Your task to perform on an android device: remove spam from my inbox in the gmail app Image 0: 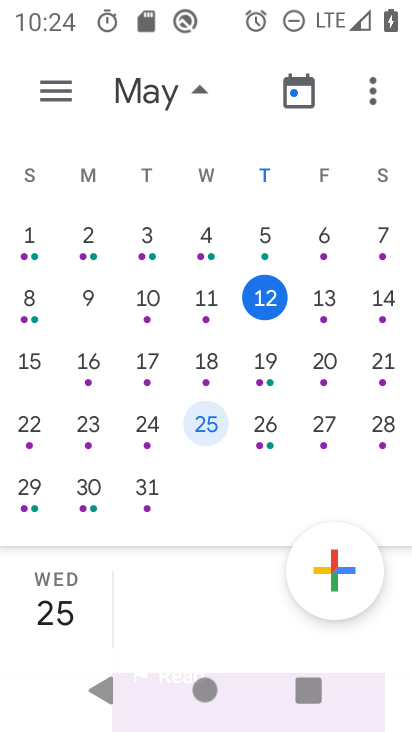
Step 0: press home button
Your task to perform on an android device: remove spam from my inbox in the gmail app Image 1: 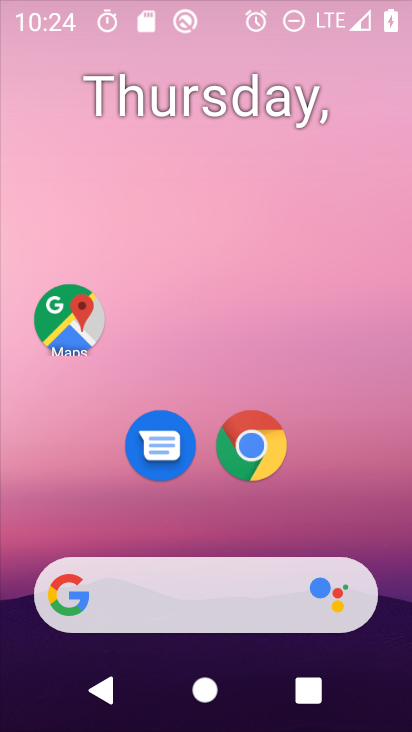
Step 1: drag from (199, 566) to (313, 56)
Your task to perform on an android device: remove spam from my inbox in the gmail app Image 2: 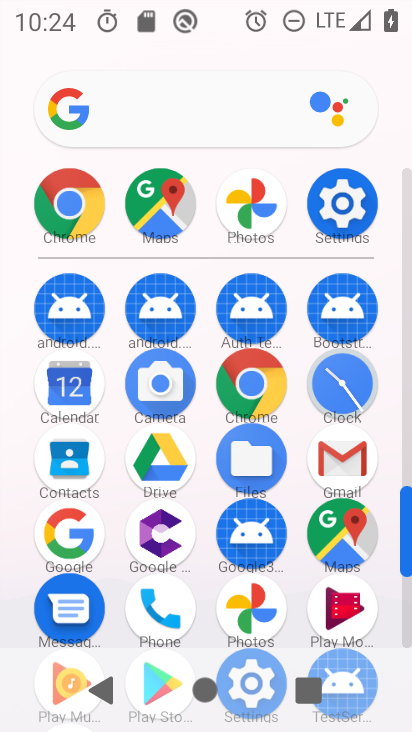
Step 2: click (343, 451)
Your task to perform on an android device: remove spam from my inbox in the gmail app Image 3: 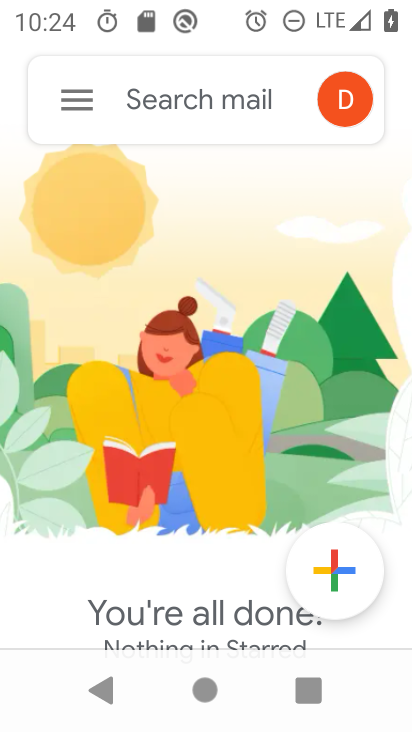
Step 3: click (89, 109)
Your task to perform on an android device: remove spam from my inbox in the gmail app Image 4: 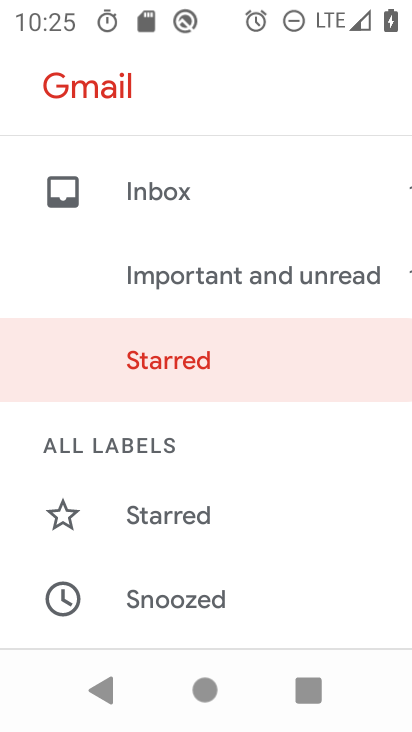
Step 4: drag from (215, 614) to (294, 104)
Your task to perform on an android device: remove spam from my inbox in the gmail app Image 5: 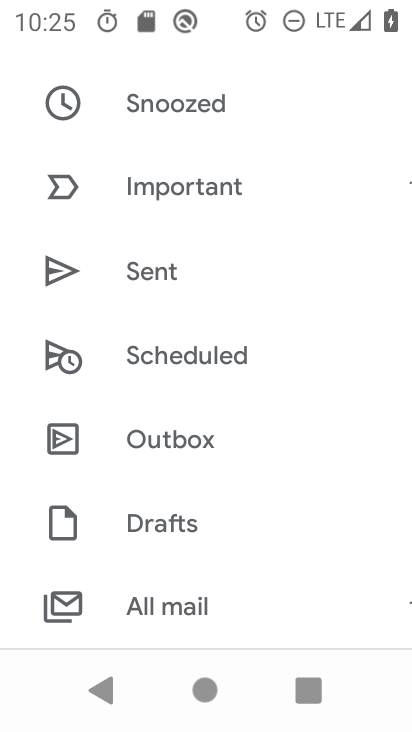
Step 5: drag from (229, 593) to (284, 0)
Your task to perform on an android device: remove spam from my inbox in the gmail app Image 6: 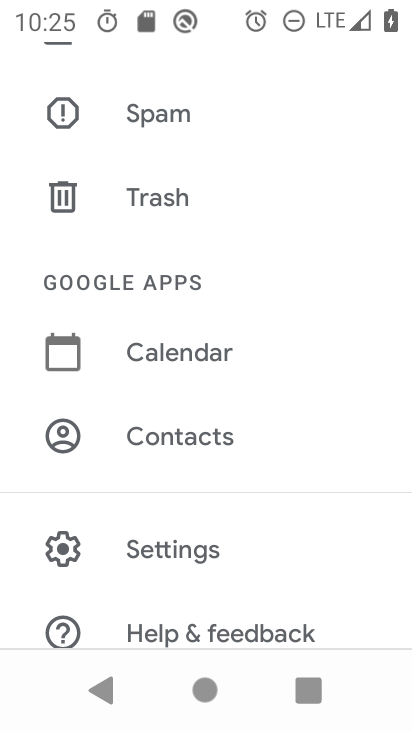
Step 6: drag from (258, 225) to (238, 461)
Your task to perform on an android device: remove spam from my inbox in the gmail app Image 7: 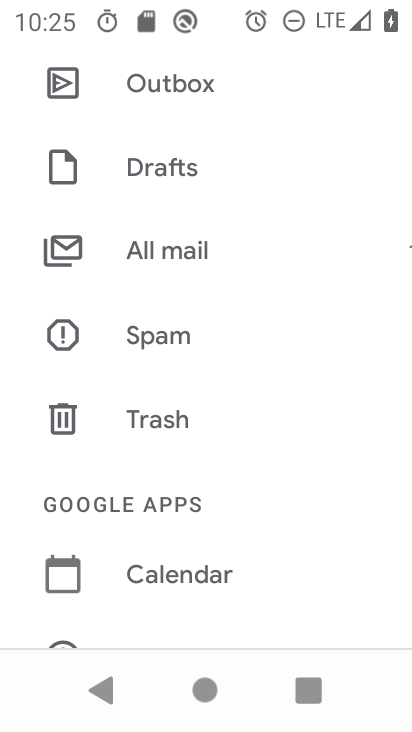
Step 7: click (141, 337)
Your task to perform on an android device: remove spam from my inbox in the gmail app Image 8: 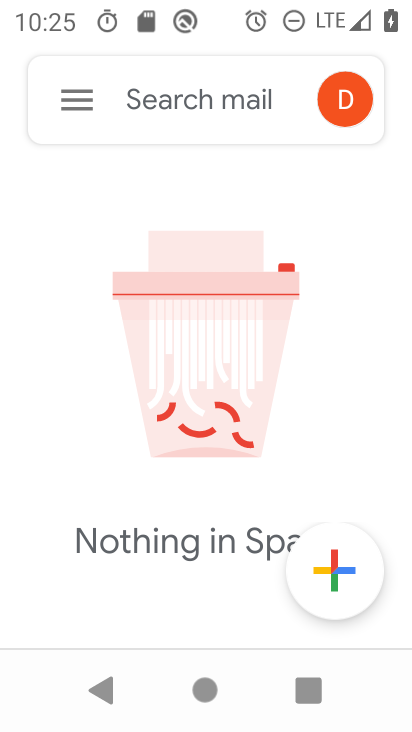
Step 8: task complete